Your task to perform on an android device: Open the stopwatch Image 0: 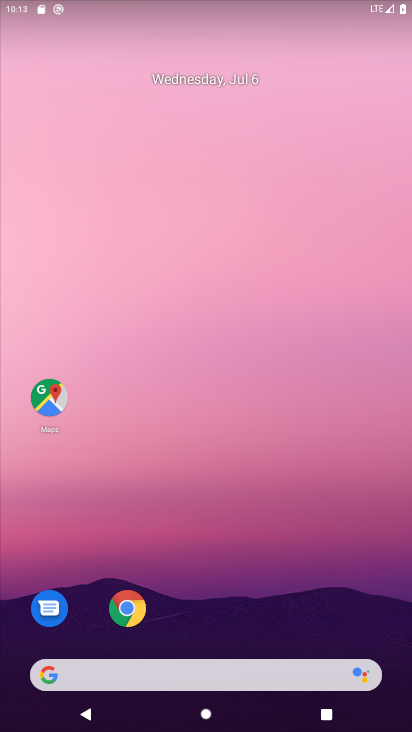
Step 0: drag from (207, 624) to (178, 5)
Your task to perform on an android device: Open the stopwatch Image 1: 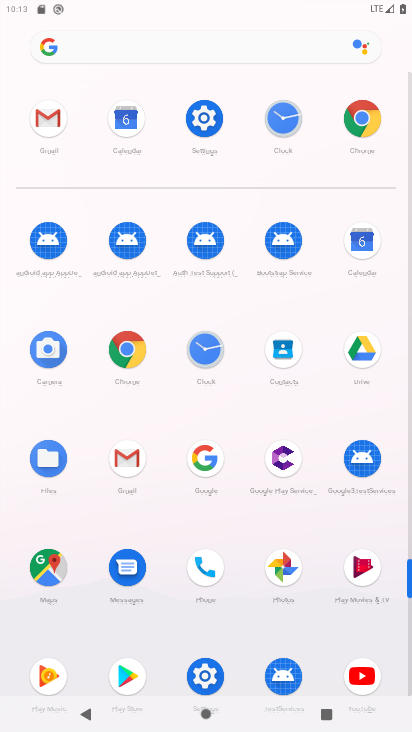
Step 1: click (208, 368)
Your task to perform on an android device: Open the stopwatch Image 2: 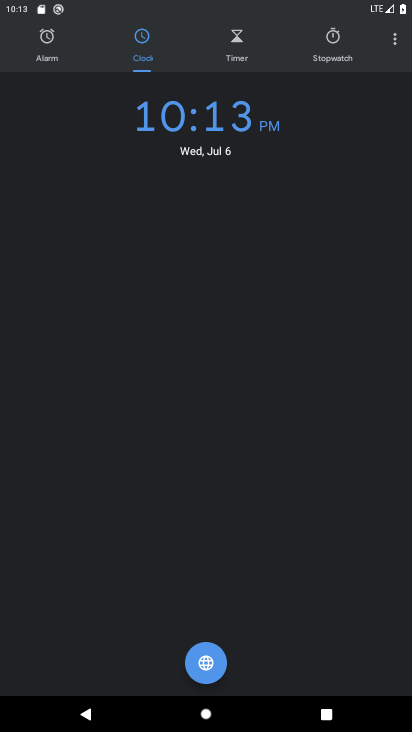
Step 2: click (338, 58)
Your task to perform on an android device: Open the stopwatch Image 3: 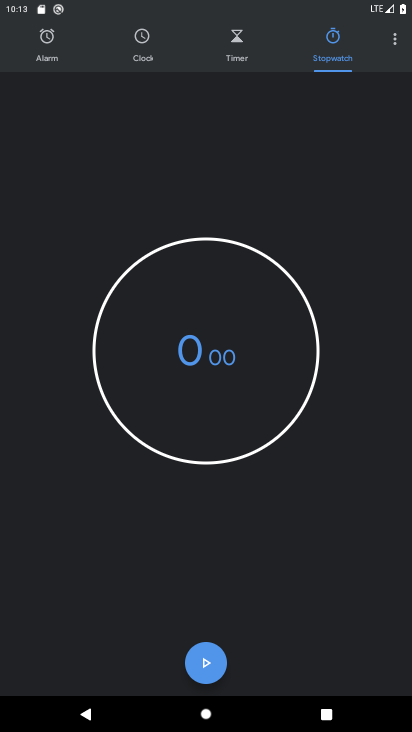
Step 3: click (203, 680)
Your task to perform on an android device: Open the stopwatch Image 4: 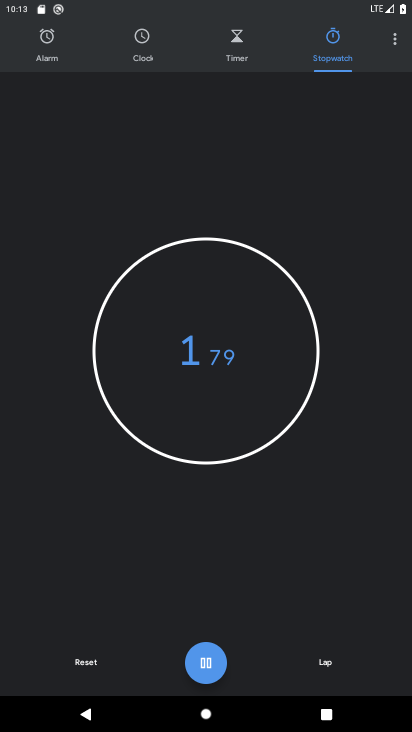
Step 4: task complete